Your task to perform on an android device: turn on data saver in the chrome app Image 0: 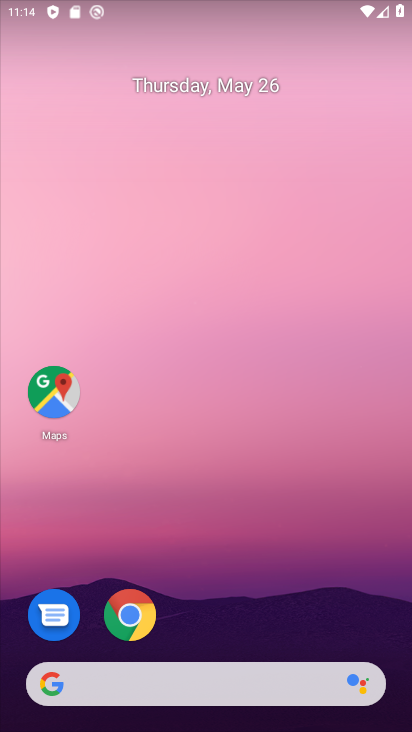
Step 0: click (142, 626)
Your task to perform on an android device: turn on data saver in the chrome app Image 1: 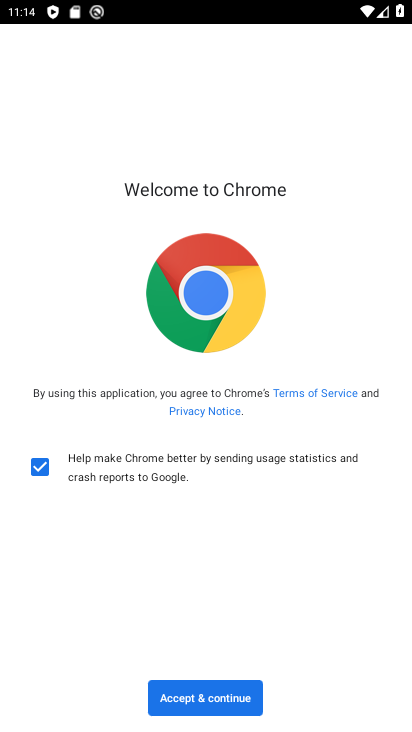
Step 1: click (205, 706)
Your task to perform on an android device: turn on data saver in the chrome app Image 2: 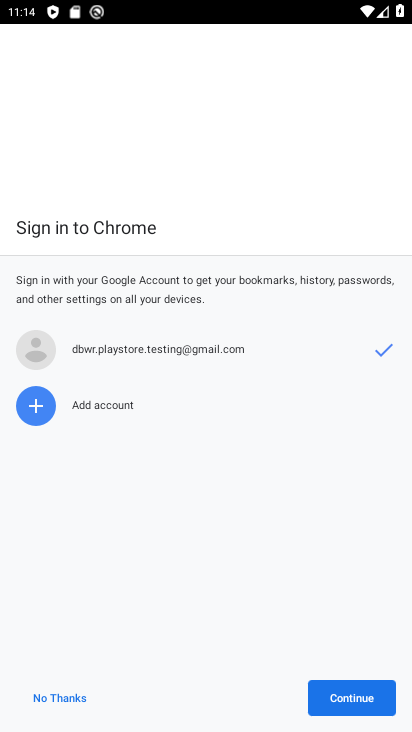
Step 2: click (357, 697)
Your task to perform on an android device: turn on data saver in the chrome app Image 3: 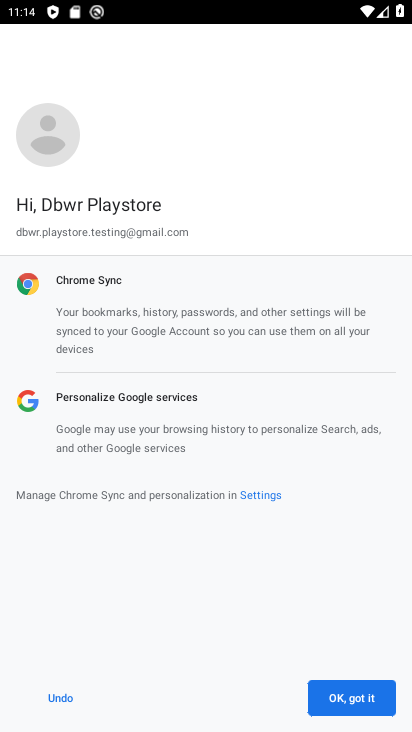
Step 3: click (357, 697)
Your task to perform on an android device: turn on data saver in the chrome app Image 4: 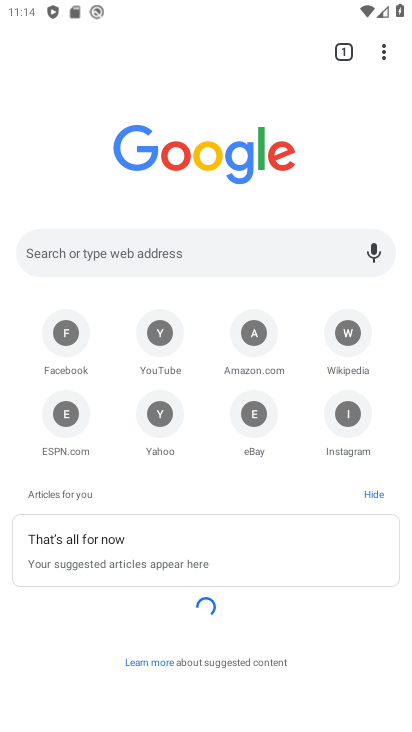
Step 4: click (380, 51)
Your task to perform on an android device: turn on data saver in the chrome app Image 5: 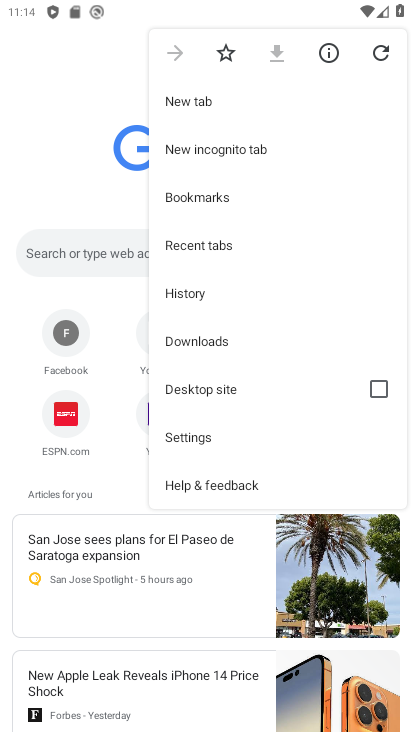
Step 5: click (203, 436)
Your task to perform on an android device: turn on data saver in the chrome app Image 6: 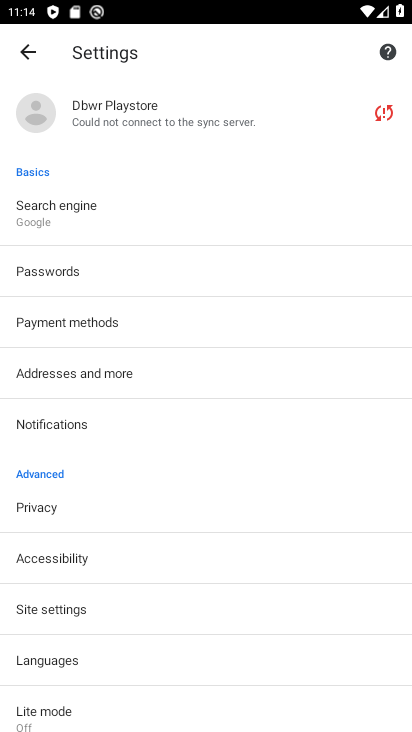
Step 6: drag from (156, 701) to (150, 497)
Your task to perform on an android device: turn on data saver in the chrome app Image 7: 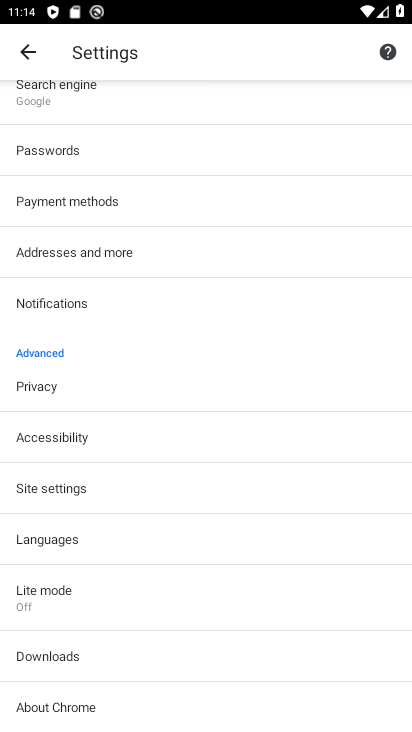
Step 7: click (132, 588)
Your task to perform on an android device: turn on data saver in the chrome app Image 8: 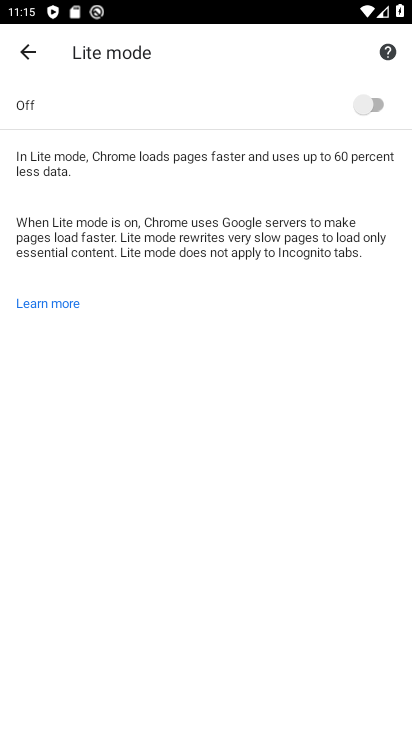
Step 8: click (375, 99)
Your task to perform on an android device: turn on data saver in the chrome app Image 9: 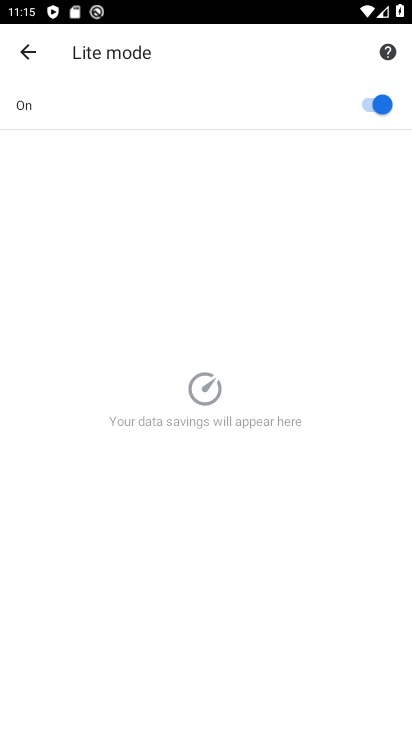
Step 9: task complete